Your task to perform on an android device: show emergency info Image 0: 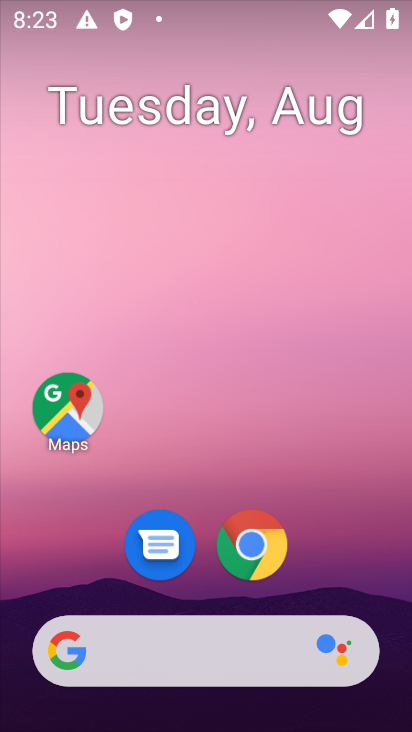
Step 0: drag from (119, 726) to (229, 79)
Your task to perform on an android device: show emergency info Image 1: 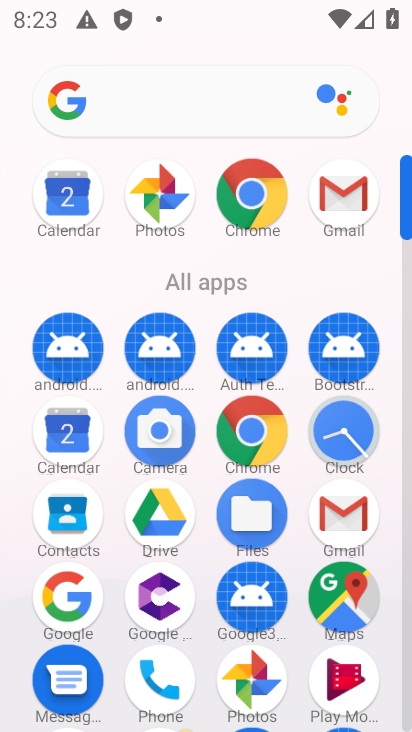
Step 1: drag from (61, 395) to (193, 91)
Your task to perform on an android device: show emergency info Image 2: 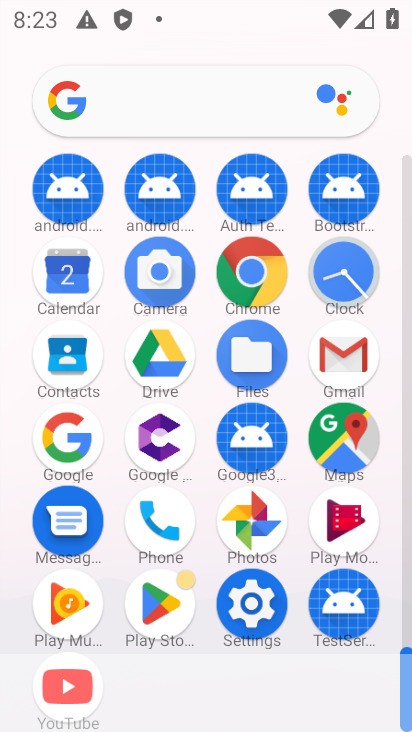
Step 2: click (247, 592)
Your task to perform on an android device: show emergency info Image 3: 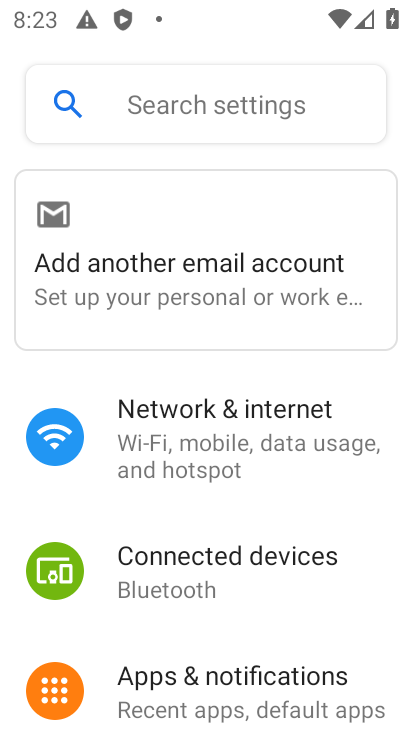
Step 3: drag from (13, 332) to (84, 155)
Your task to perform on an android device: show emergency info Image 4: 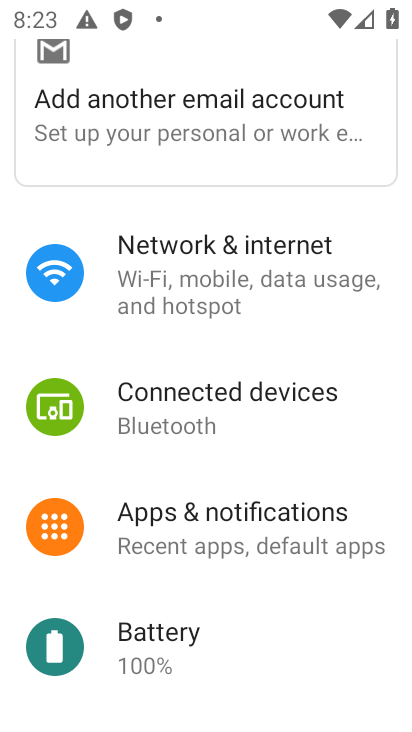
Step 4: drag from (6, 505) to (132, 138)
Your task to perform on an android device: show emergency info Image 5: 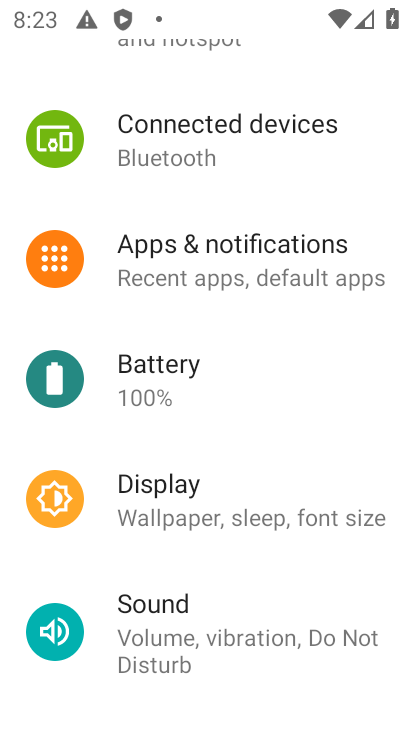
Step 5: drag from (109, 452) to (246, 46)
Your task to perform on an android device: show emergency info Image 6: 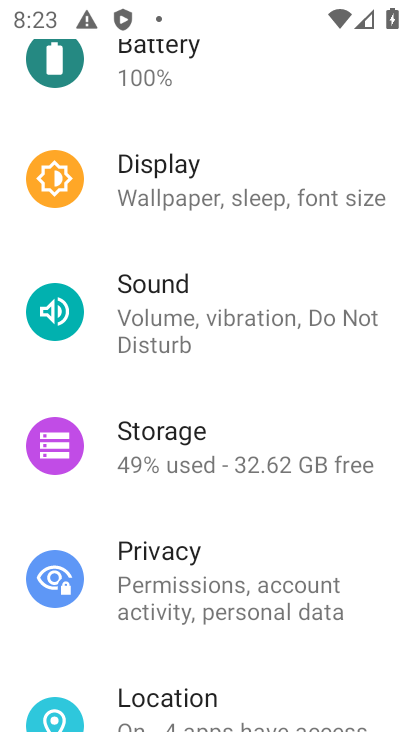
Step 6: drag from (31, 542) to (219, 97)
Your task to perform on an android device: show emergency info Image 7: 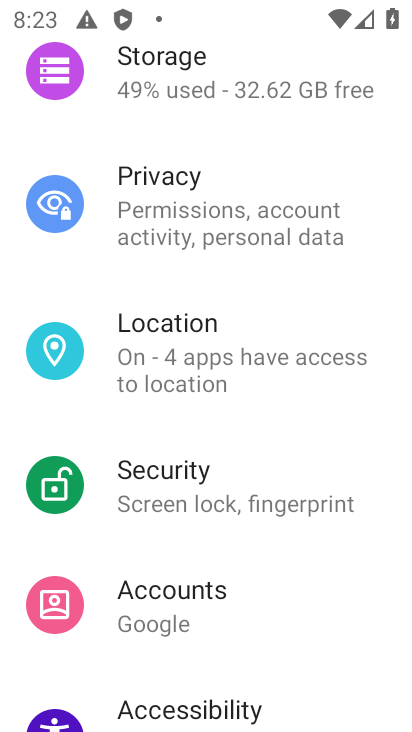
Step 7: drag from (49, 595) to (244, 162)
Your task to perform on an android device: show emergency info Image 8: 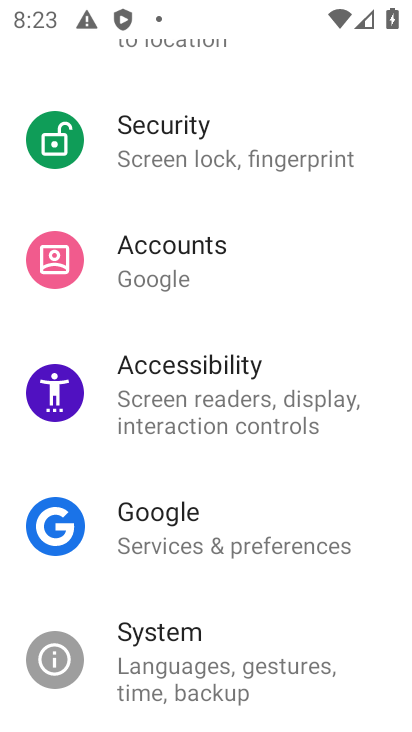
Step 8: drag from (32, 548) to (211, 189)
Your task to perform on an android device: show emergency info Image 9: 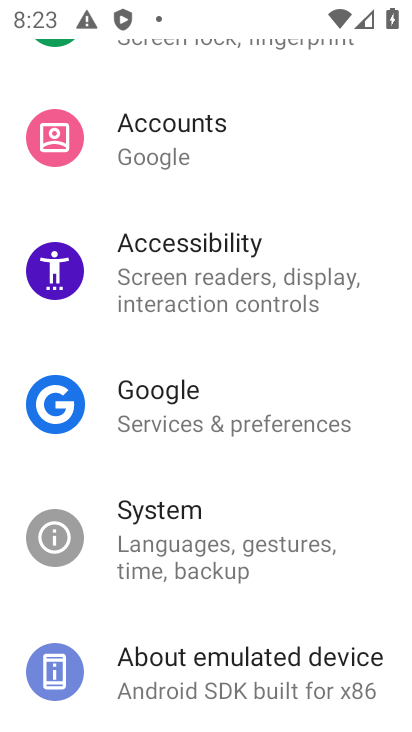
Step 9: click (246, 667)
Your task to perform on an android device: show emergency info Image 10: 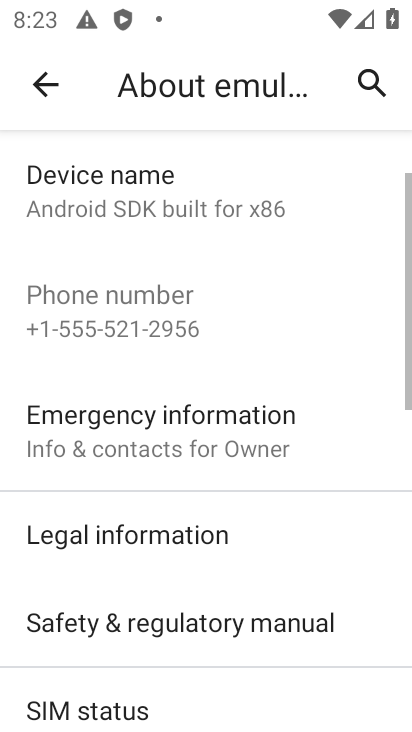
Step 10: click (124, 425)
Your task to perform on an android device: show emergency info Image 11: 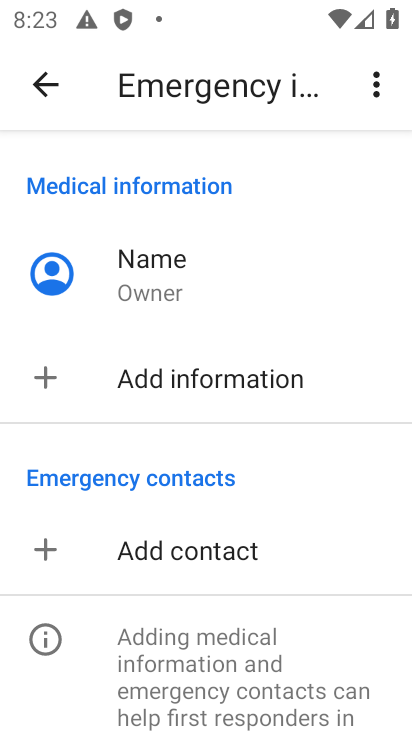
Step 11: task complete